Your task to perform on an android device: remove spam from my inbox in the gmail app Image 0: 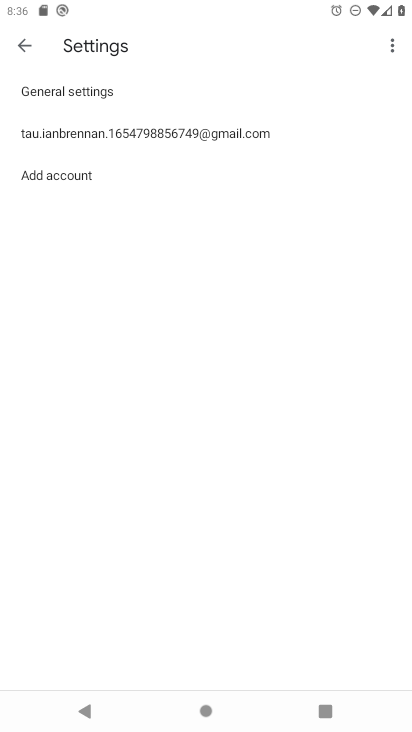
Step 0: press home button
Your task to perform on an android device: remove spam from my inbox in the gmail app Image 1: 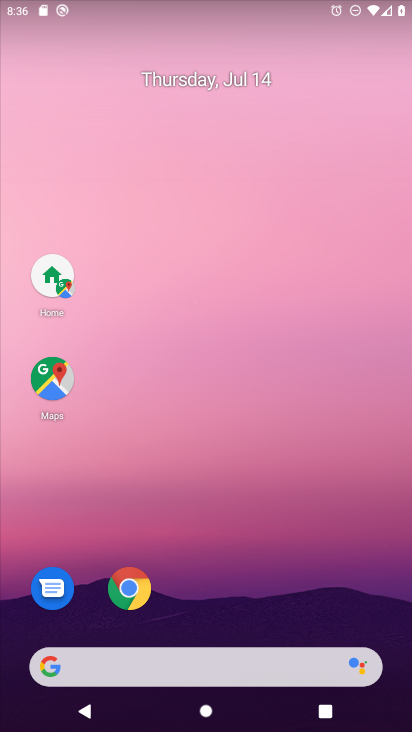
Step 1: drag from (36, 689) to (188, 128)
Your task to perform on an android device: remove spam from my inbox in the gmail app Image 2: 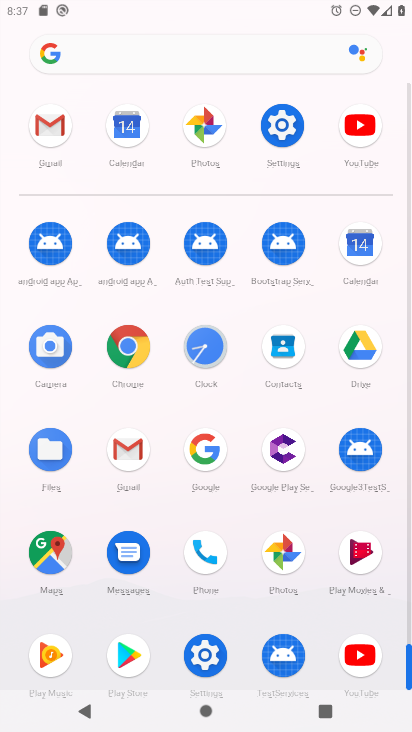
Step 2: click (128, 454)
Your task to perform on an android device: remove spam from my inbox in the gmail app Image 3: 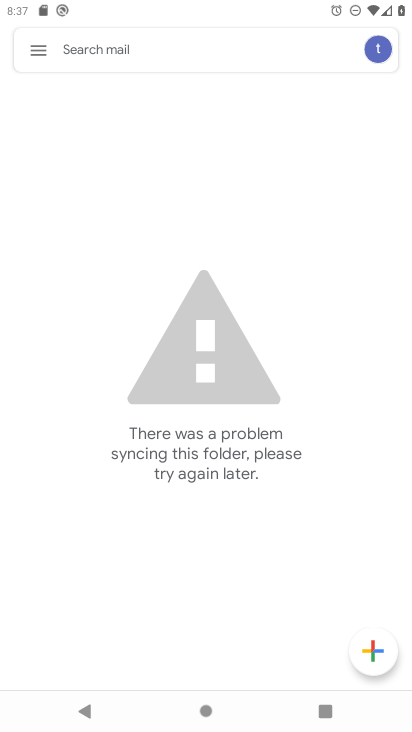
Step 3: click (34, 46)
Your task to perform on an android device: remove spam from my inbox in the gmail app Image 4: 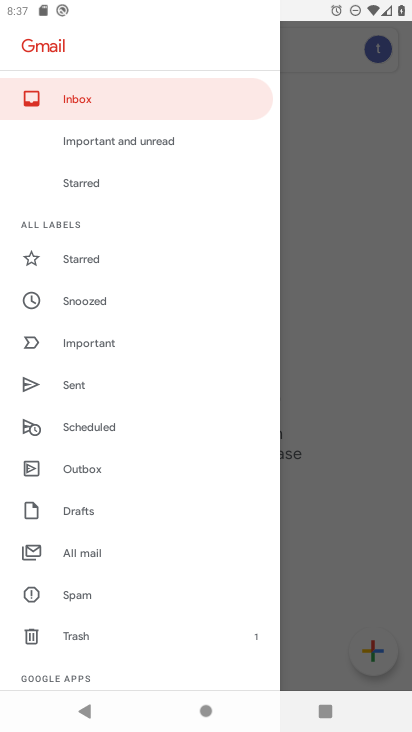
Step 4: click (91, 594)
Your task to perform on an android device: remove spam from my inbox in the gmail app Image 5: 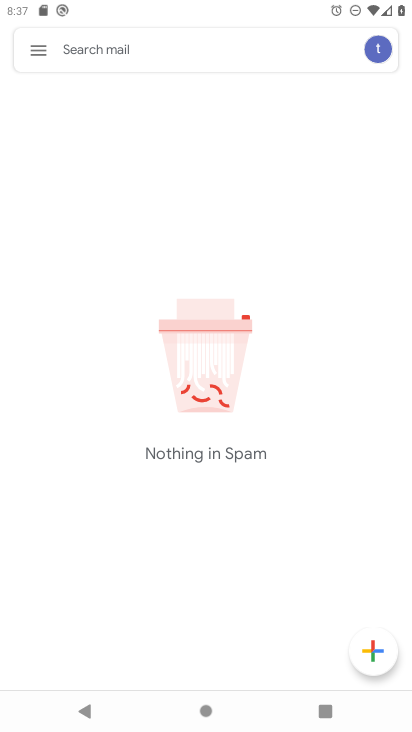
Step 5: task complete